Your task to perform on an android device: Open my contact list Image 0: 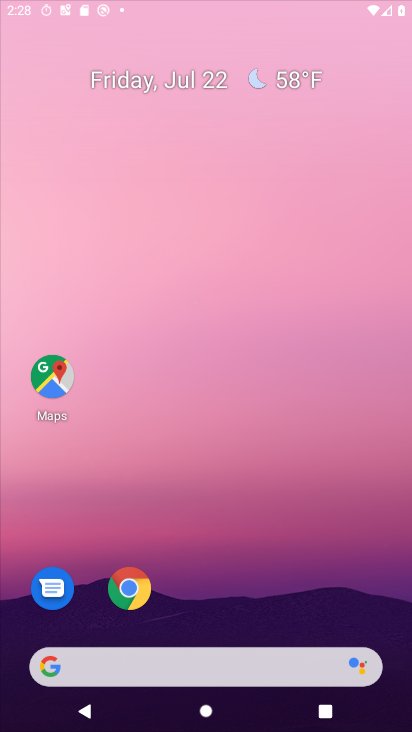
Step 0: press home button
Your task to perform on an android device: Open my contact list Image 1: 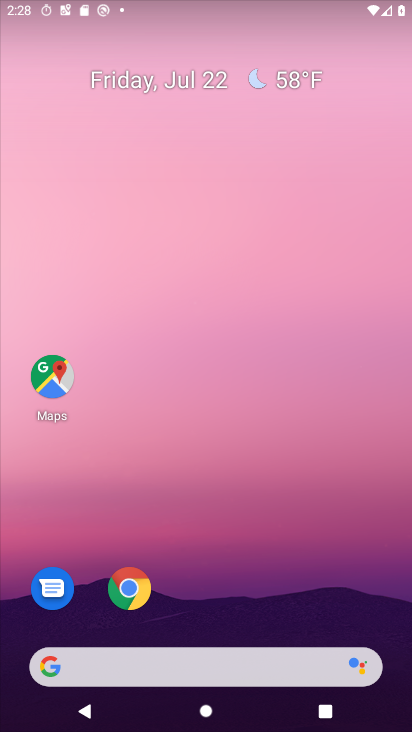
Step 1: drag from (271, 564) to (257, 5)
Your task to perform on an android device: Open my contact list Image 2: 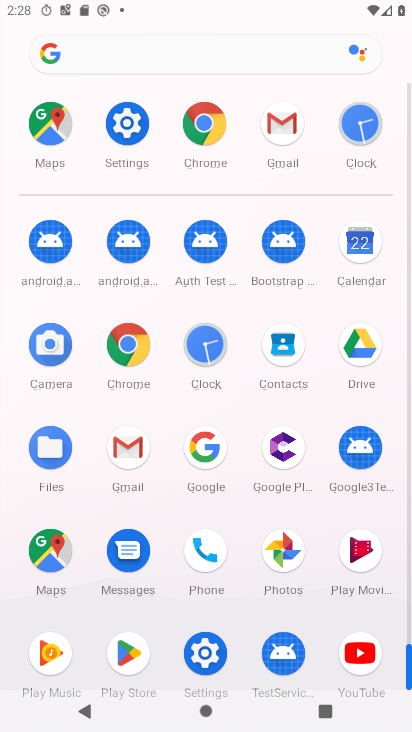
Step 2: click (269, 345)
Your task to perform on an android device: Open my contact list Image 3: 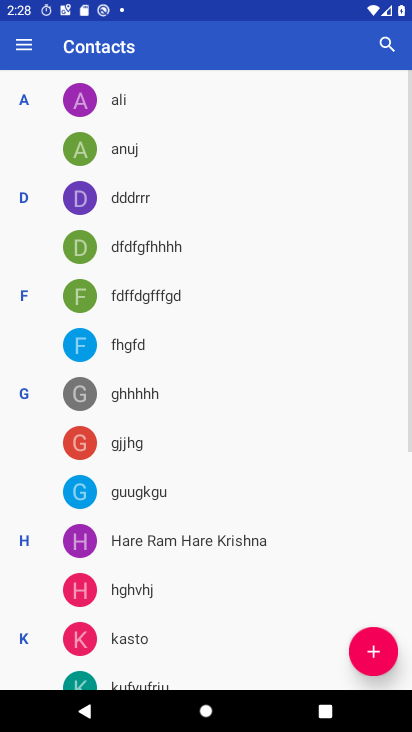
Step 3: task complete